Your task to perform on an android device: empty trash in the gmail app Image 0: 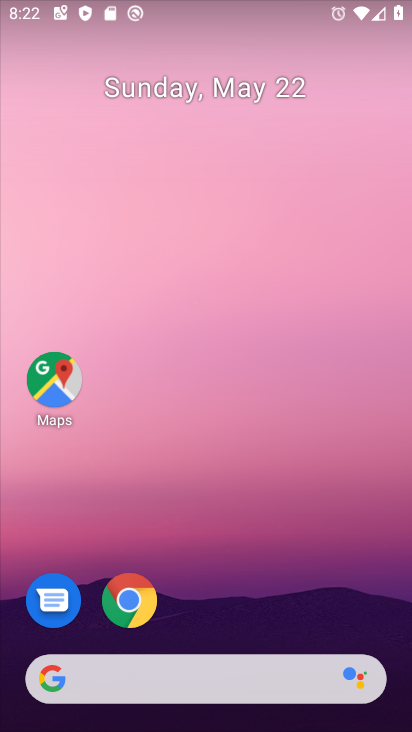
Step 0: drag from (252, 653) to (214, 155)
Your task to perform on an android device: empty trash in the gmail app Image 1: 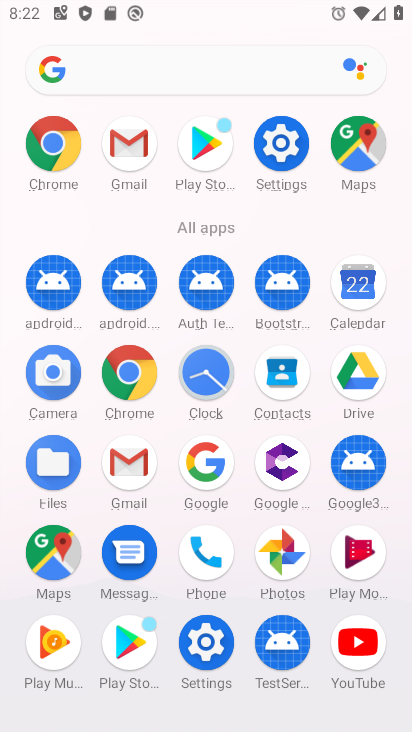
Step 1: click (123, 487)
Your task to perform on an android device: empty trash in the gmail app Image 2: 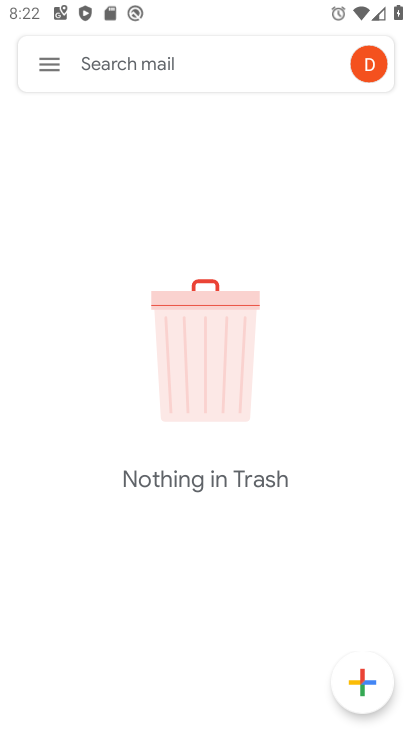
Step 2: task complete